Your task to perform on an android device: turn on location history Image 0: 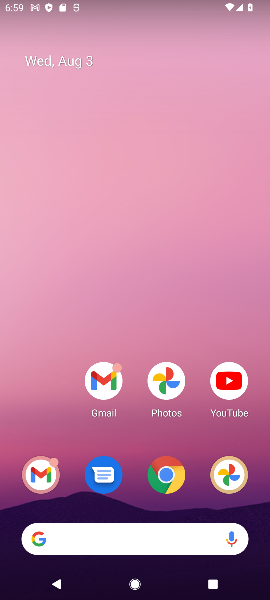
Step 0: drag from (164, 332) to (148, 75)
Your task to perform on an android device: turn on location history Image 1: 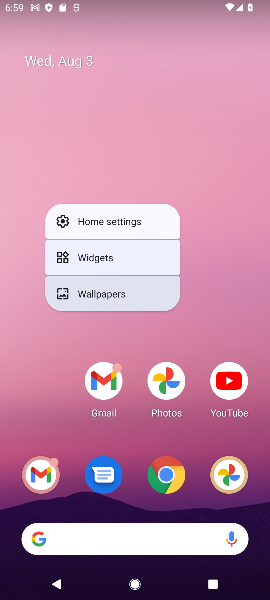
Step 1: click (202, 272)
Your task to perform on an android device: turn on location history Image 2: 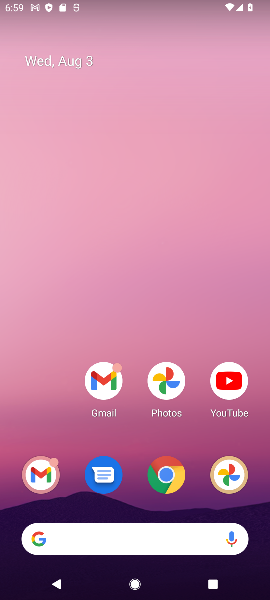
Step 2: drag from (64, 369) to (100, 60)
Your task to perform on an android device: turn on location history Image 3: 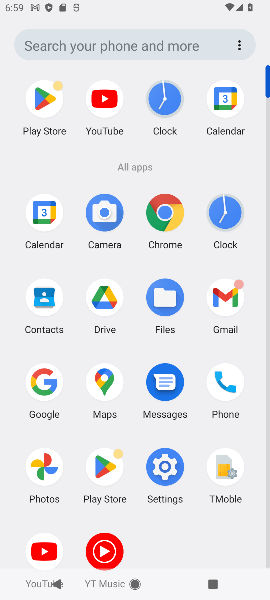
Step 3: click (159, 469)
Your task to perform on an android device: turn on location history Image 4: 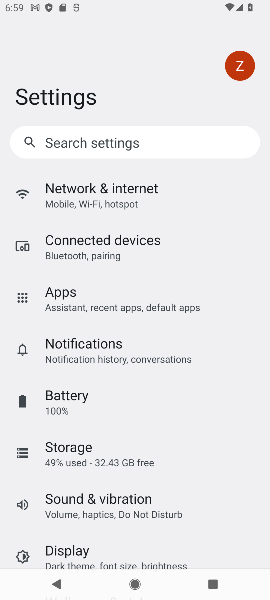
Step 4: drag from (172, 531) to (137, 329)
Your task to perform on an android device: turn on location history Image 5: 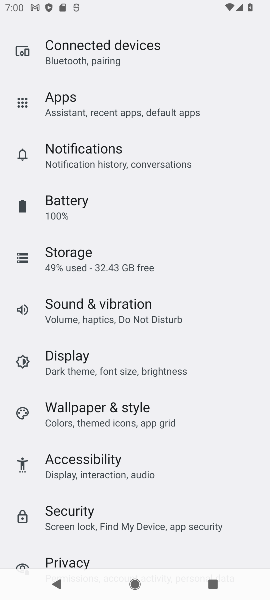
Step 5: drag from (130, 531) to (124, 267)
Your task to perform on an android device: turn on location history Image 6: 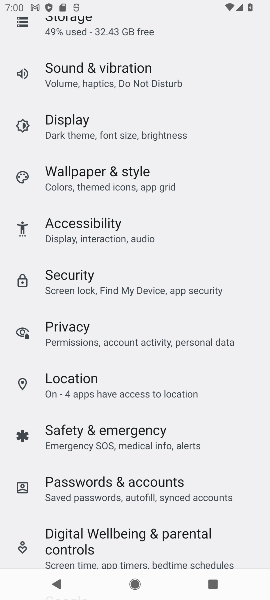
Step 6: click (110, 394)
Your task to perform on an android device: turn on location history Image 7: 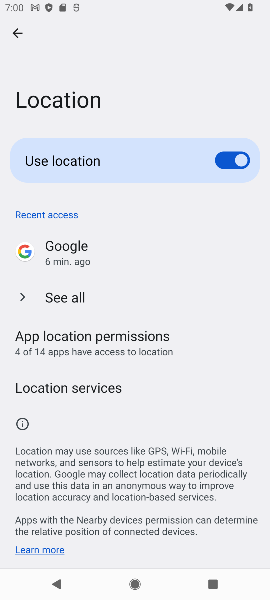
Step 7: click (95, 382)
Your task to perform on an android device: turn on location history Image 8: 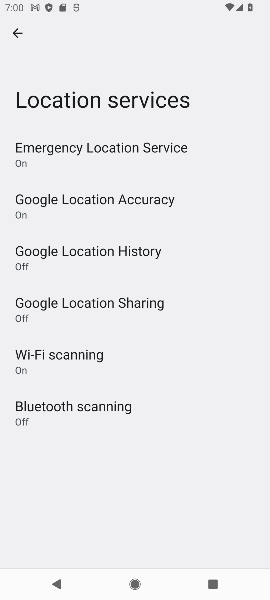
Step 8: click (124, 251)
Your task to perform on an android device: turn on location history Image 9: 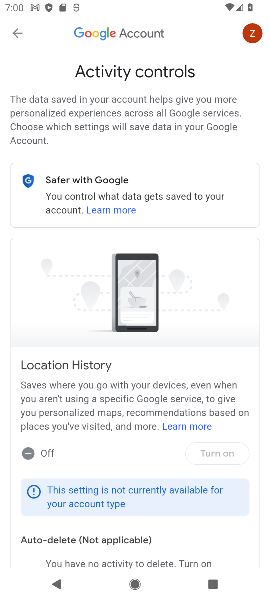
Step 9: task complete